Your task to perform on an android device: Open Chrome and go to settings Image 0: 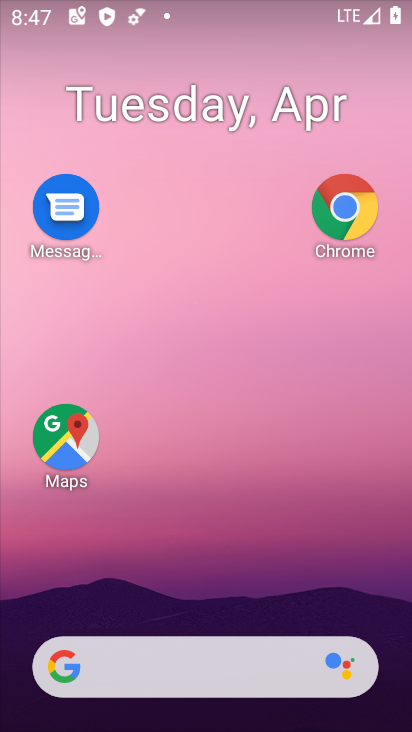
Step 0: drag from (231, 616) to (229, 46)
Your task to perform on an android device: Open Chrome and go to settings Image 1: 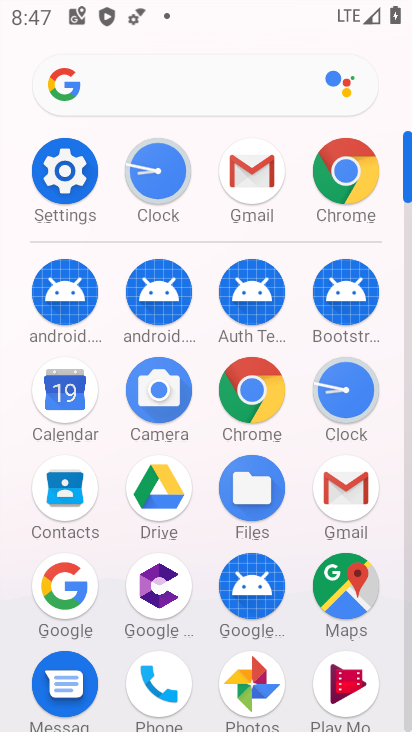
Step 1: click (250, 421)
Your task to perform on an android device: Open Chrome and go to settings Image 2: 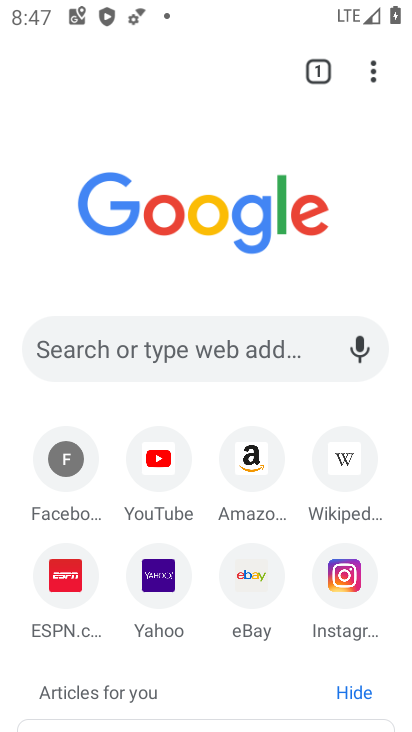
Step 2: click (365, 78)
Your task to perform on an android device: Open Chrome and go to settings Image 3: 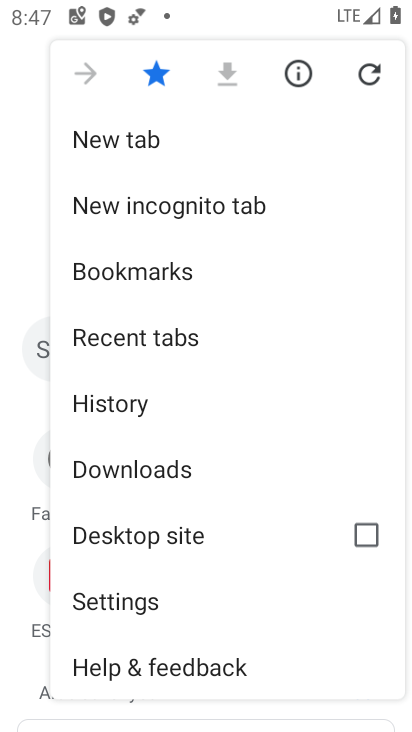
Step 3: click (82, 593)
Your task to perform on an android device: Open Chrome and go to settings Image 4: 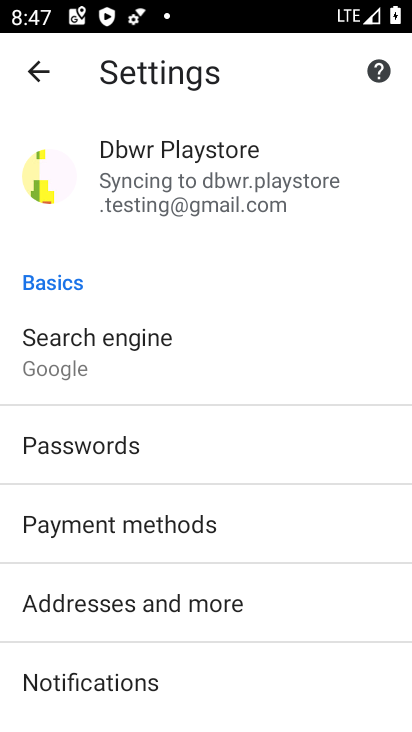
Step 4: task complete